Your task to perform on an android device: Search for vegetarian restaurants on Maps Image 0: 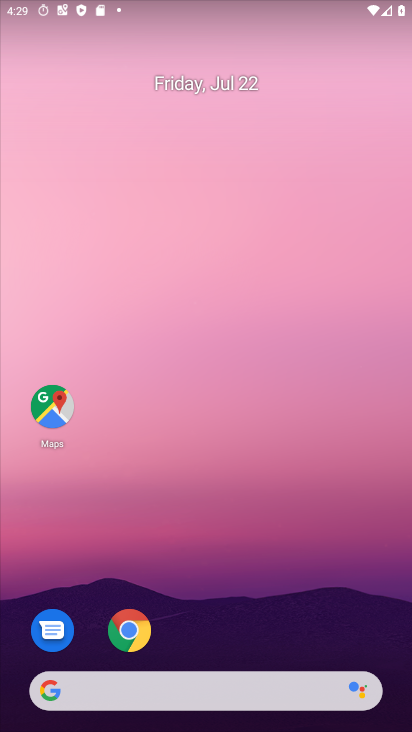
Step 0: drag from (348, 702) to (308, 17)
Your task to perform on an android device: Search for vegetarian restaurants on Maps Image 1: 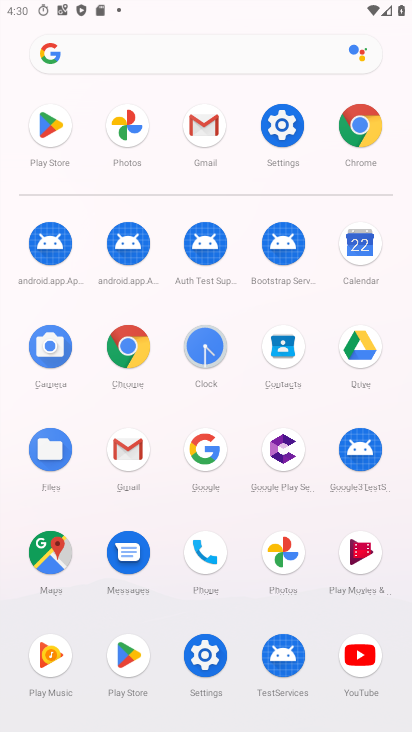
Step 1: click (58, 555)
Your task to perform on an android device: Search for vegetarian restaurants on Maps Image 2: 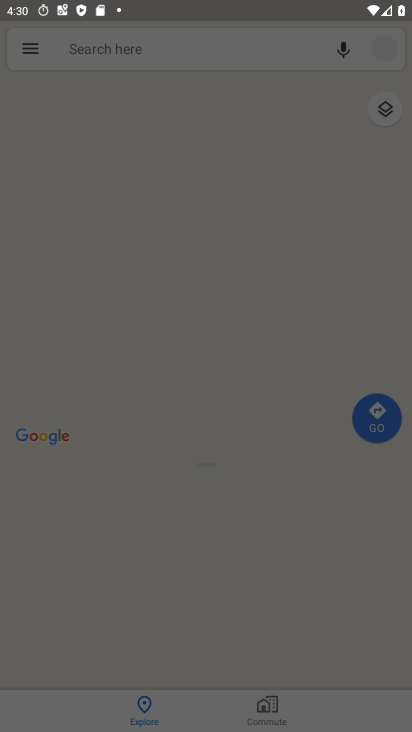
Step 2: click (195, 49)
Your task to perform on an android device: Search for vegetarian restaurants on Maps Image 3: 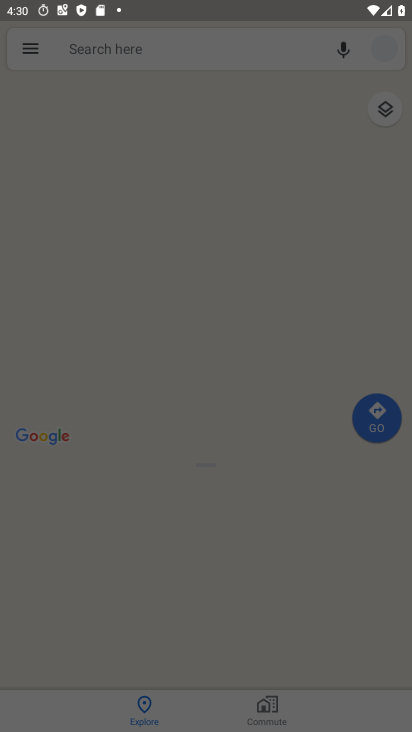
Step 3: click (195, 49)
Your task to perform on an android device: Search for vegetarian restaurants on Maps Image 4: 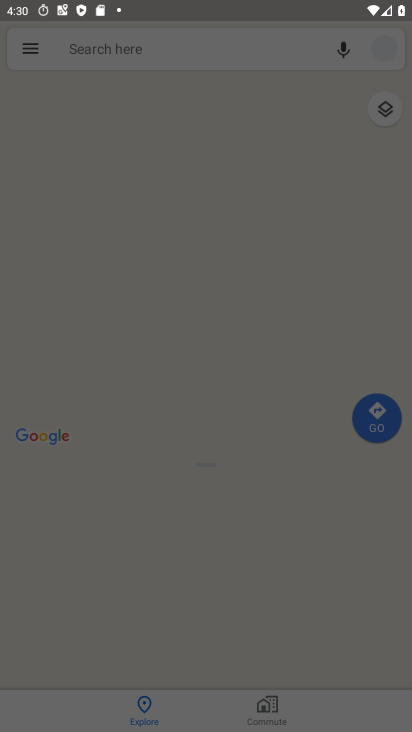
Step 4: click (195, 49)
Your task to perform on an android device: Search for vegetarian restaurants on Maps Image 5: 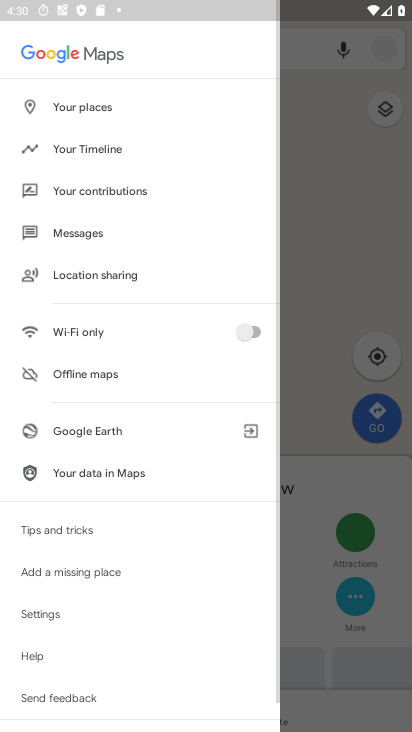
Step 5: click (378, 170)
Your task to perform on an android device: Search for vegetarian restaurants on Maps Image 6: 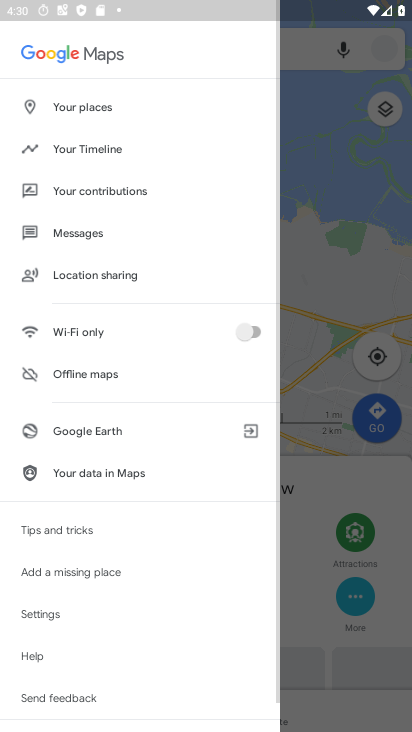
Step 6: click (332, 226)
Your task to perform on an android device: Search for vegetarian restaurants on Maps Image 7: 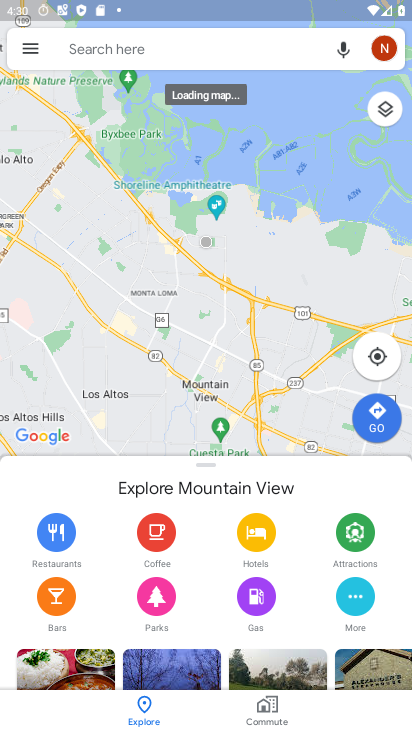
Step 7: click (251, 56)
Your task to perform on an android device: Search for vegetarian restaurants on Maps Image 8: 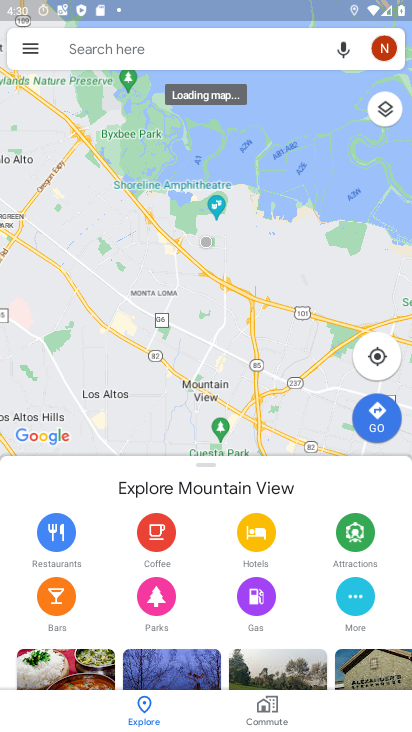
Step 8: click (251, 56)
Your task to perform on an android device: Search for vegetarian restaurants on Maps Image 9: 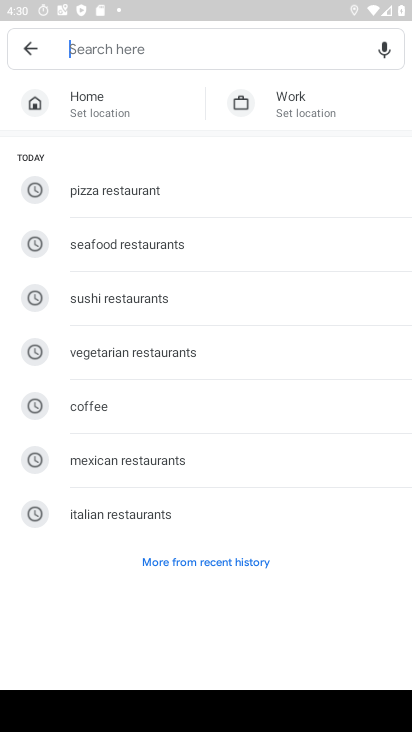
Step 9: type "vegetarian restaurant"
Your task to perform on an android device: Search for vegetarian restaurants on Maps Image 10: 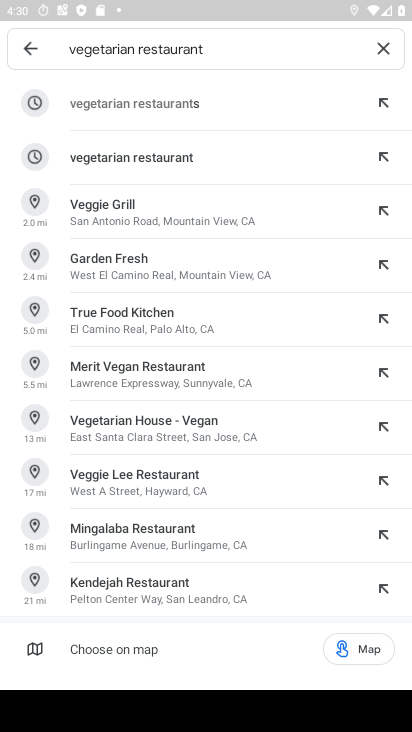
Step 10: click (275, 119)
Your task to perform on an android device: Search for vegetarian restaurants on Maps Image 11: 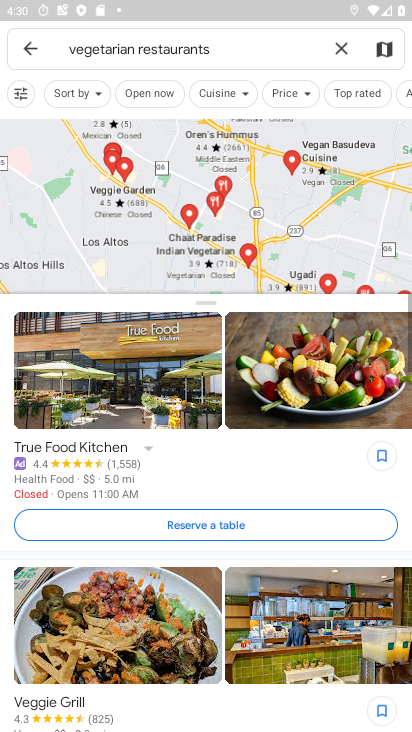
Step 11: task complete